Your task to perform on an android device: Play the last video I watched on Youtube Image 0: 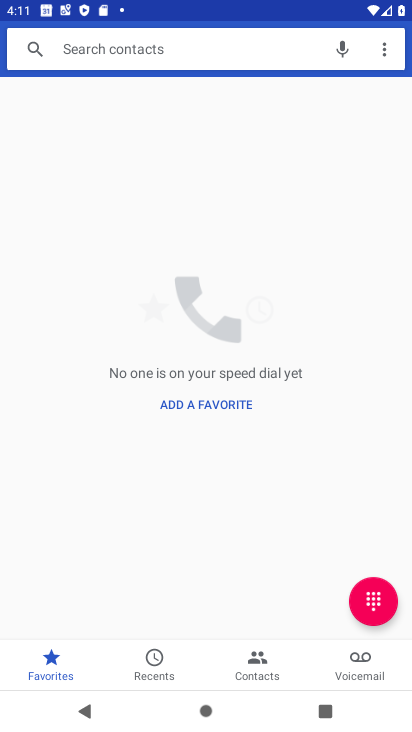
Step 0: press home button
Your task to perform on an android device: Play the last video I watched on Youtube Image 1: 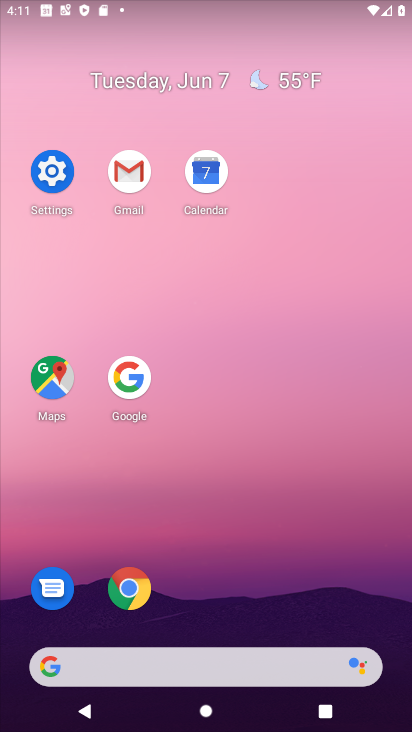
Step 1: drag from (246, 556) to (324, 207)
Your task to perform on an android device: Play the last video I watched on Youtube Image 2: 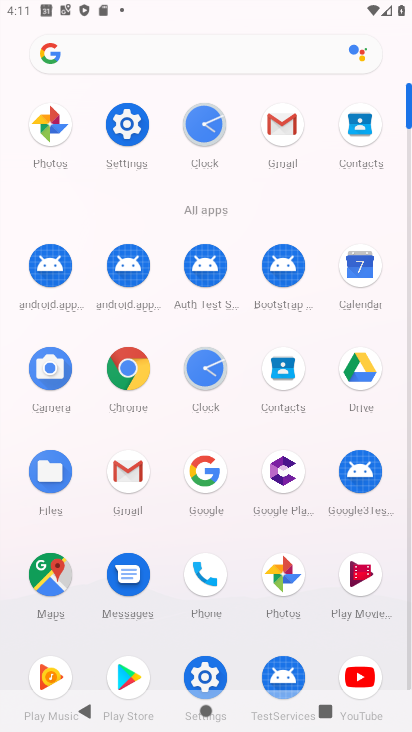
Step 2: click (356, 662)
Your task to perform on an android device: Play the last video I watched on Youtube Image 3: 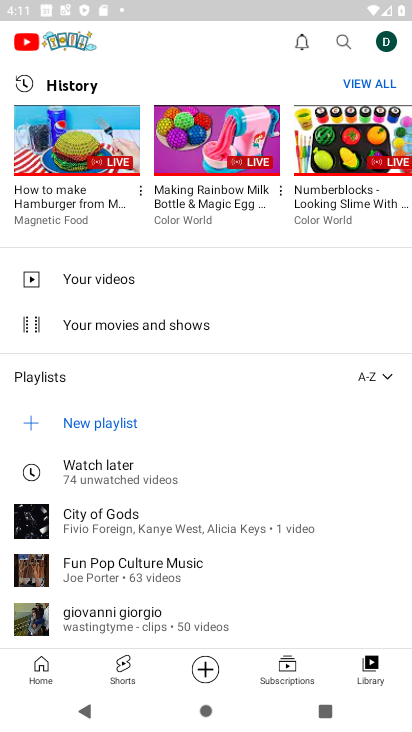
Step 3: task complete